Your task to perform on an android device: toggle location history Image 0: 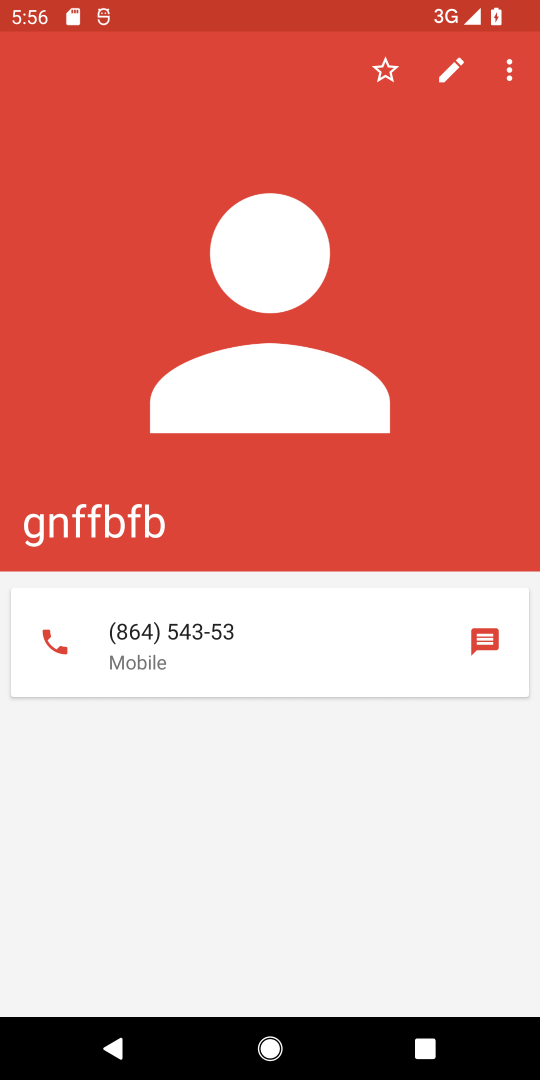
Step 0: press home button
Your task to perform on an android device: toggle location history Image 1: 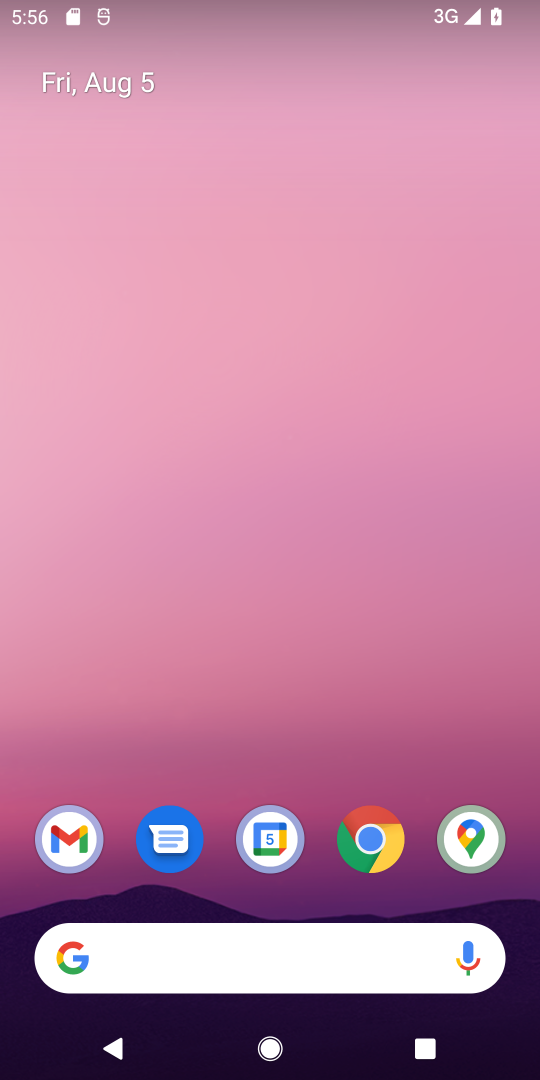
Step 1: drag from (277, 753) to (279, 206)
Your task to perform on an android device: toggle location history Image 2: 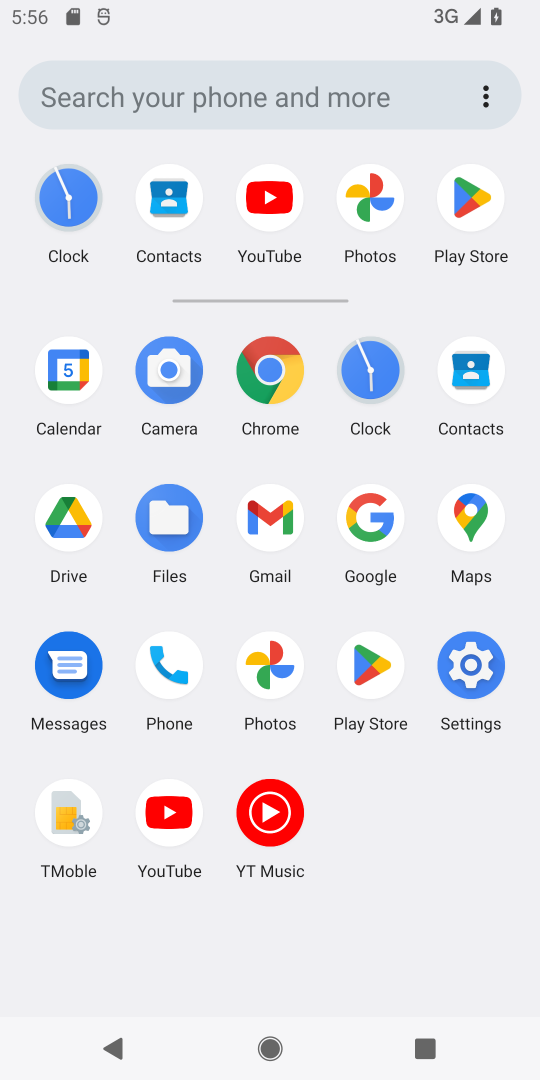
Step 2: click (454, 676)
Your task to perform on an android device: toggle location history Image 3: 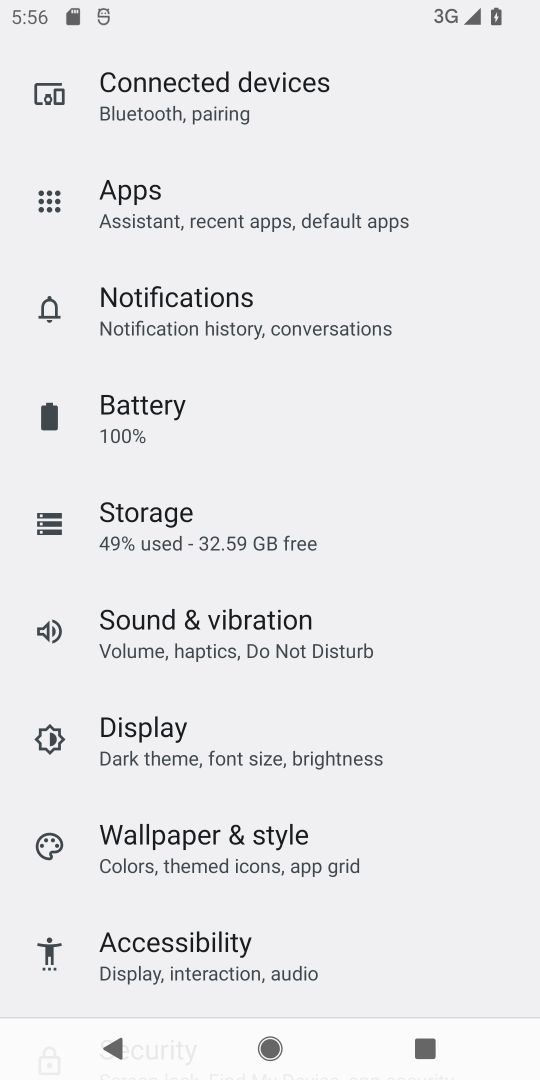
Step 3: click (268, 790)
Your task to perform on an android device: toggle location history Image 4: 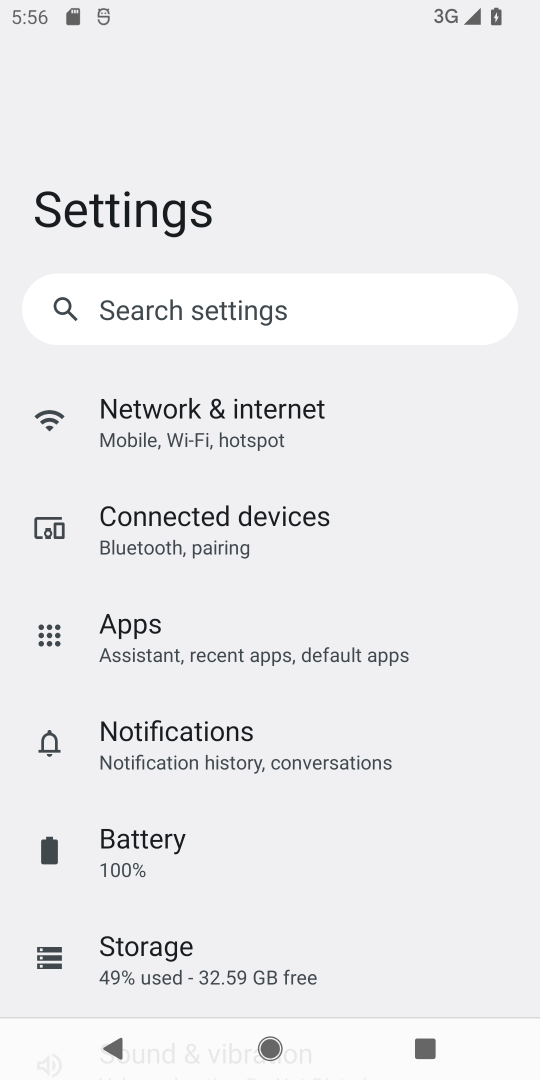
Step 4: drag from (297, 826) to (290, 295)
Your task to perform on an android device: toggle location history Image 5: 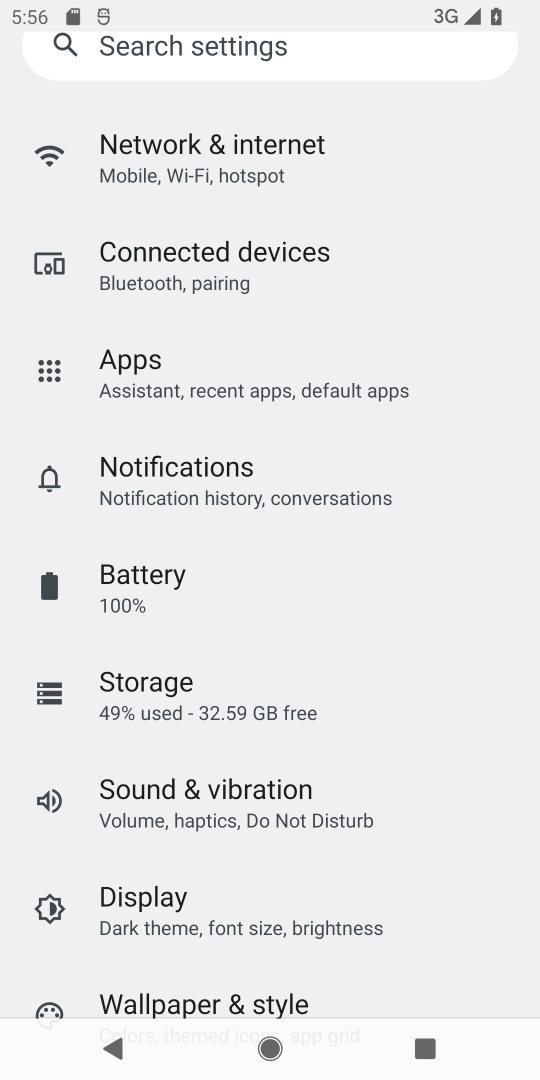
Step 5: drag from (286, 870) to (287, 315)
Your task to perform on an android device: toggle location history Image 6: 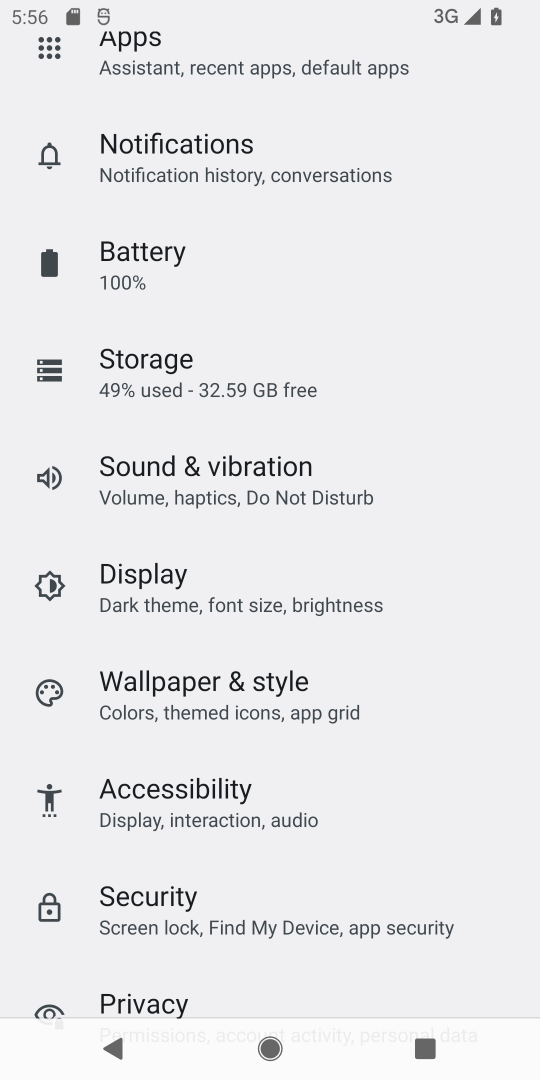
Step 6: drag from (221, 875) to (249, 269)
Your task to perform on an android device: toggle location history Image 7: 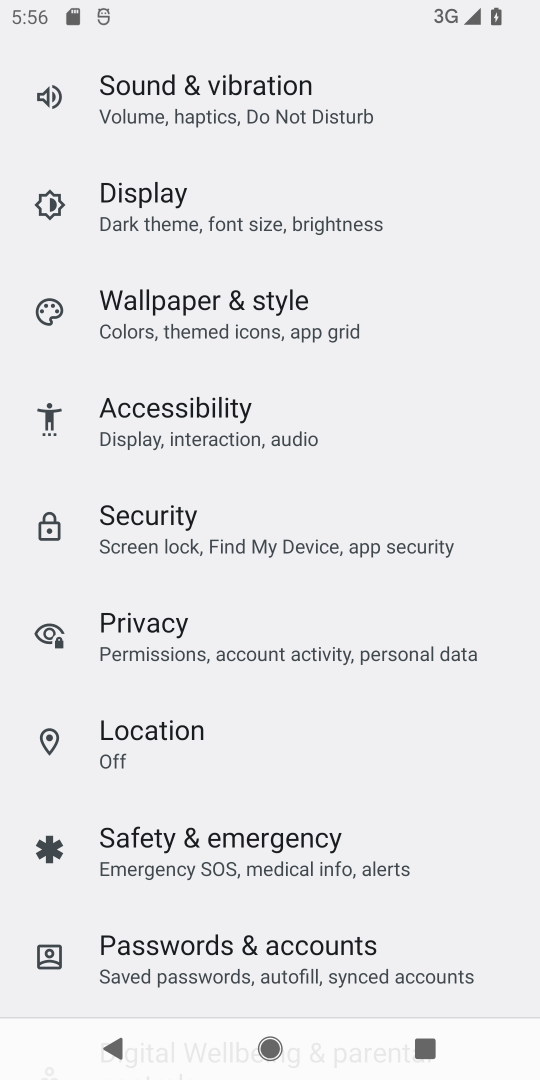
Step 7: click (146, 720)
Your task to perform on an android device: toggle location history Image 8: 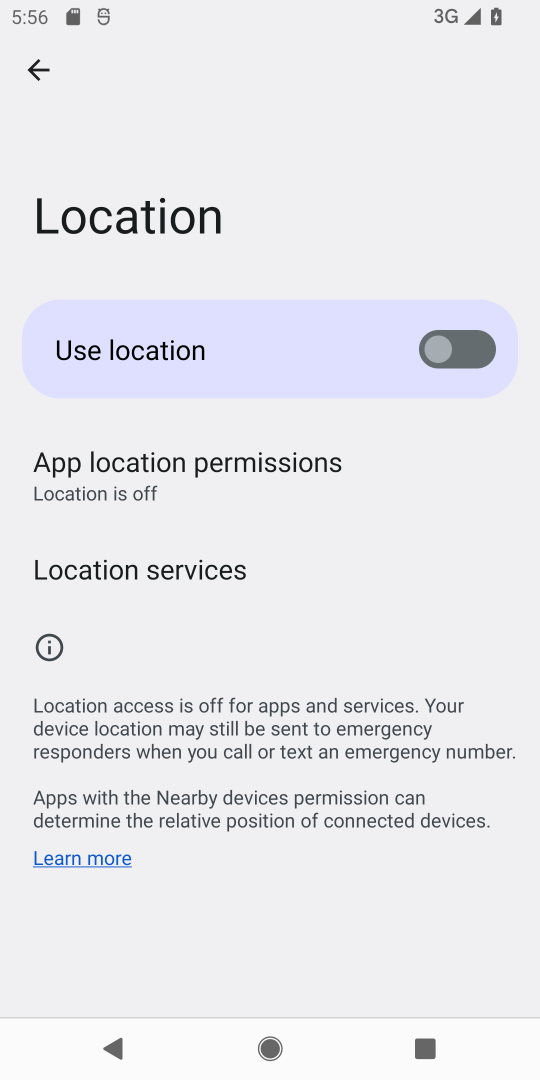
Step 8: click (209, 552)
Your task to perform on an android device: toggle location history Image 9: 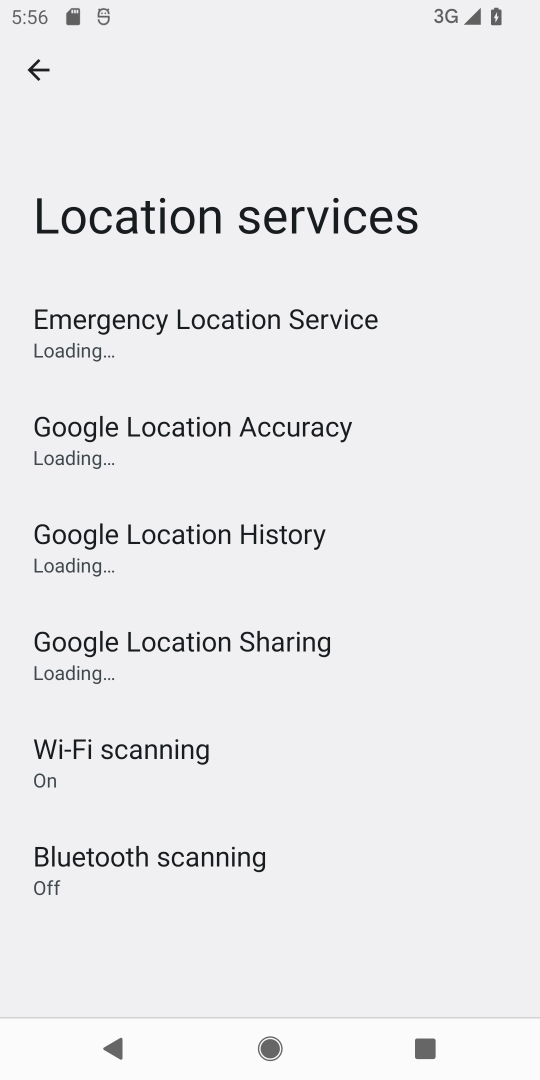
Step 9: click (221, 545)
Your task to perform on an android device: toggle location history Image 10: 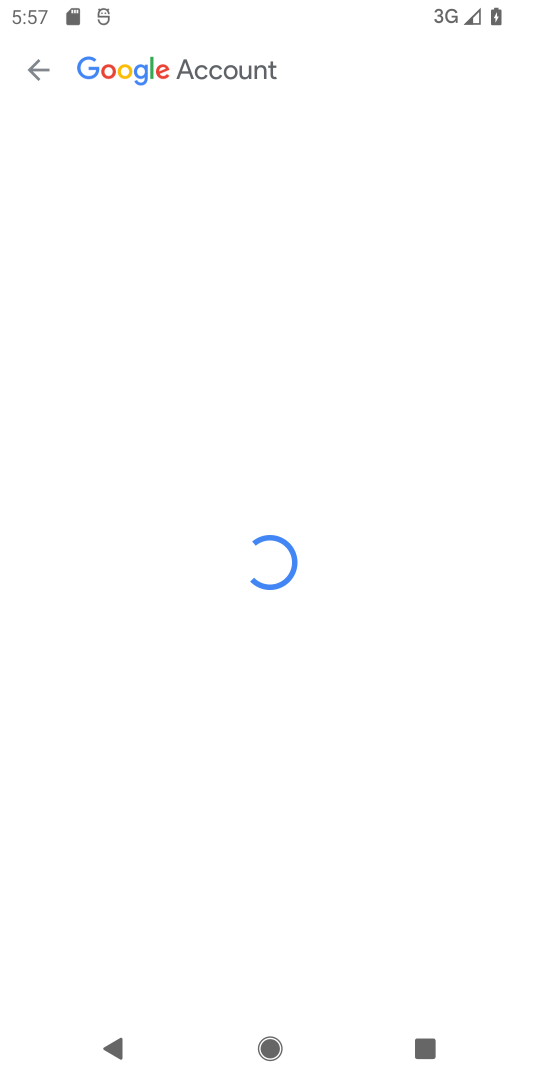
Step 10: task complete